Your task to perform on an android device: Search for flights from NYC to Chicago Image 0: 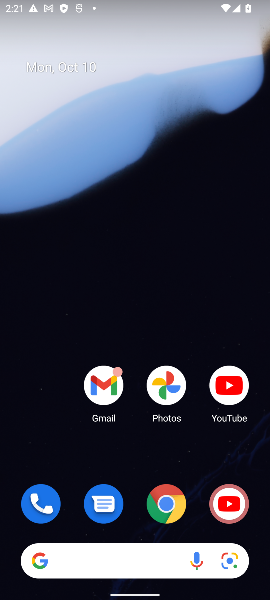
Step 0: drag from (109, 411) to (74, 44)
Your task to perform on an android device: Search for flights from NYC to Chicago Image 1: 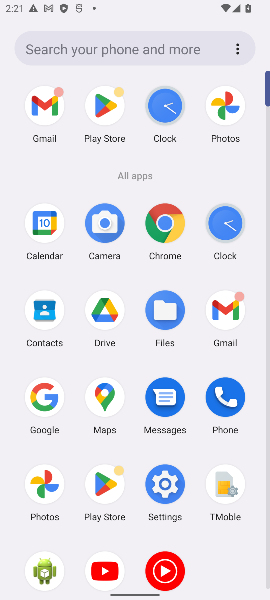
Step 1: click (161, 231)
Your task to perform on an android device: Search for flights from NYC to Chicago Image 2: 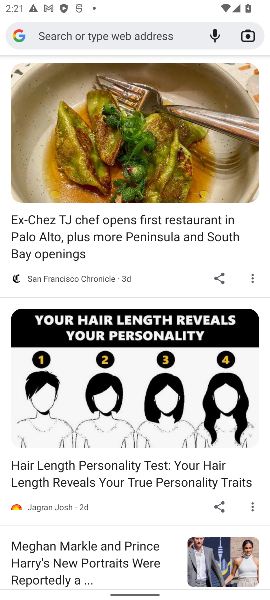
Step 2: click (140, 30)
Your task to perform on an android device: Search for flights from NYC to Chicago Image 3: 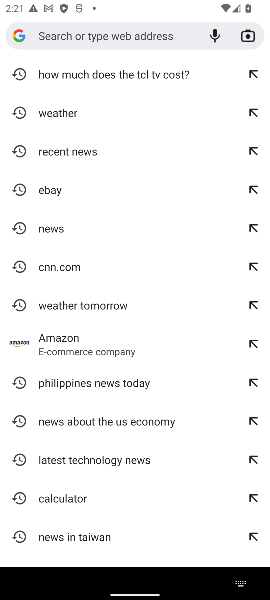
Step 3: type "Search for flights from NYC to Chicago"
Your task to perform on an android device: Search for flights from NYC to Chicago Image 4: 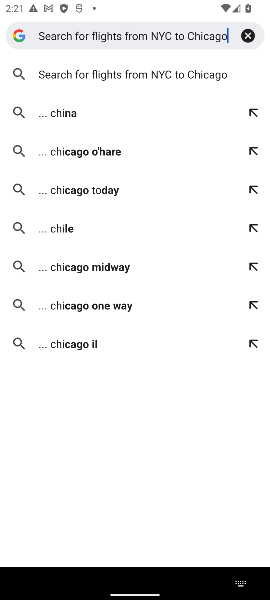
Step 4: press enter
Your task to perform on an android device: Search for flights from NYC to Chicago Image 5: 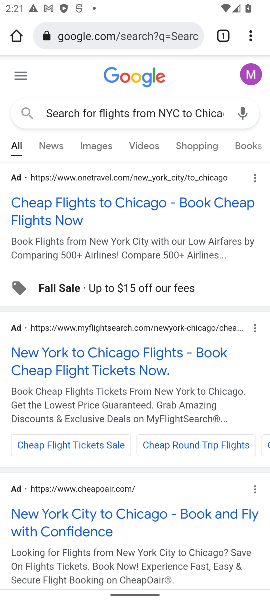
Step 5: click (18, 210)
Your task to perform on an android device: Search for flights from NYC to Chicago Image 6: 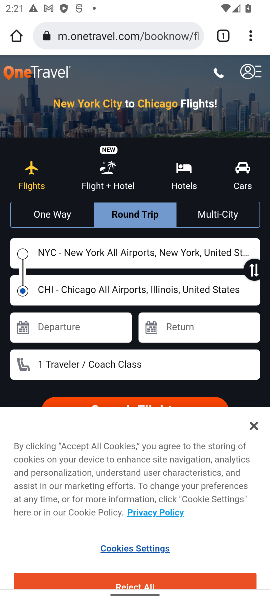
Step 6: task complete